Your task to perform on an android device: turn on the 12-hour format for clock Image 0: 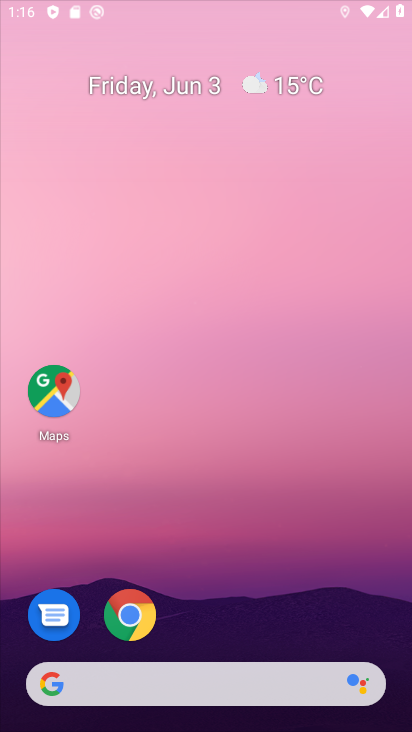
Step 0: drag from (165, 654) to (244, 313)
Your task to perform on an android device: turn on the 12-hour format for clock Image 1: 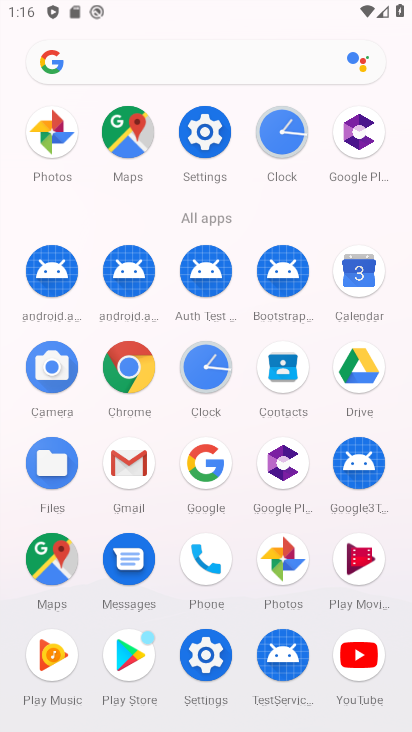
Step 1: click (213, 373)
Your task to perform on an android device: turn on the 12-hour format for clock Image 2: 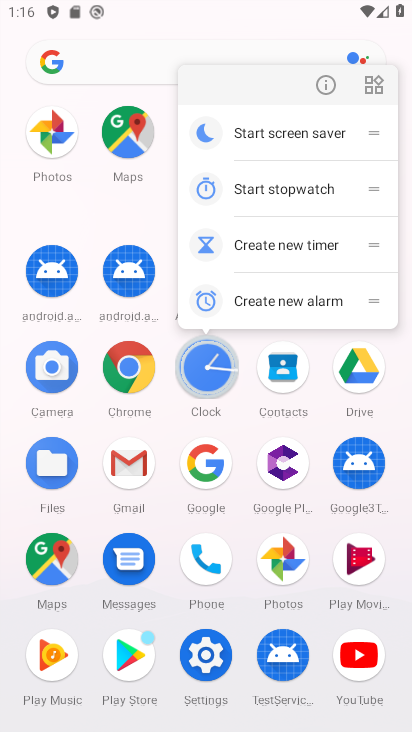
Step 2: click (213, 373)
Your task to perform on an android device: turn on the 12-hour format for clock Image 3: 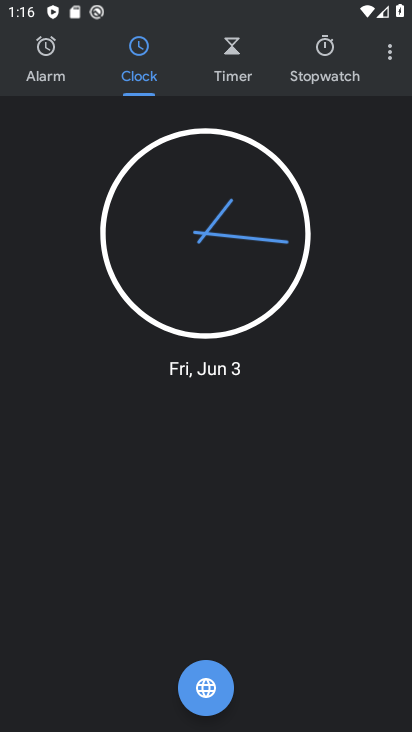
Step 3: press home button
Your task to perform on an android device: turn on the 12-hour format for clock Image 4: 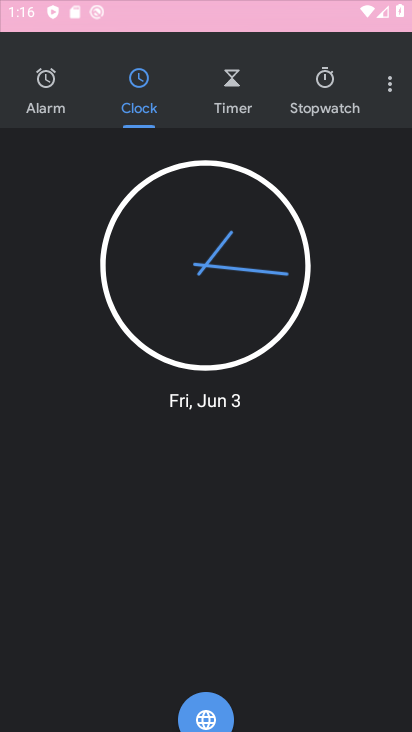
Step 4: drag from (216, 560) to (366, 94)
Your task to perform on an android device: turn on the 12-hour format for clock Image 5: 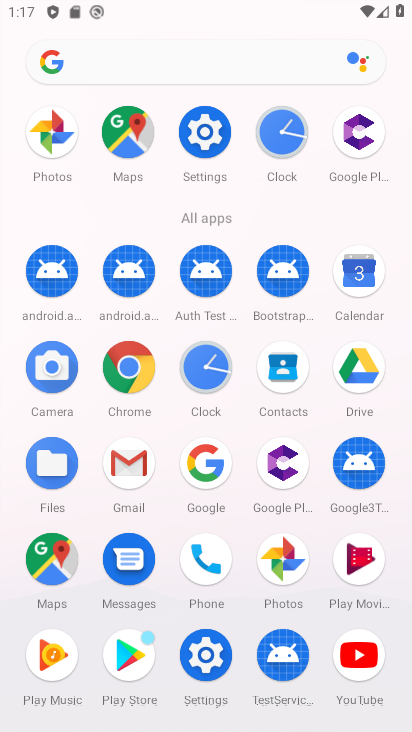
Step 5: click (189, 378)
Your task to perform on an android device: turn on the 12-hour format for clock Image 6: 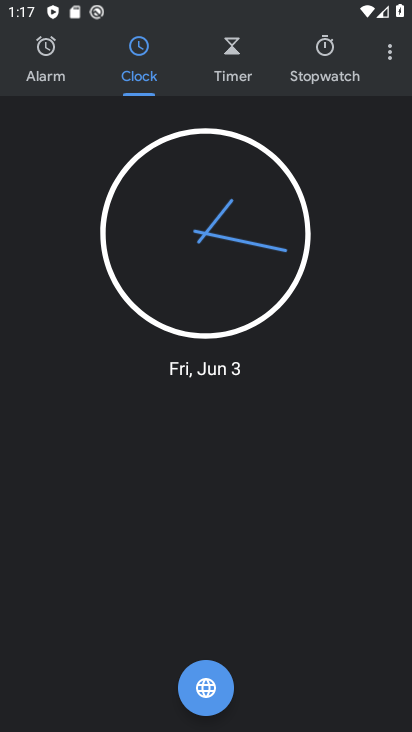
Step 6: click (392, 63)
Your task to perform on an android device: turn on the 12-hour format for clock Image 7: 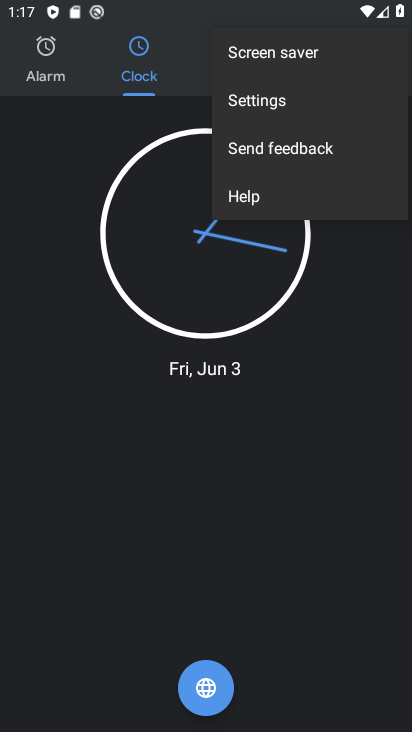
Step 7: click (312, 93)
Your task to perform on an android device: turn on the 12-hour format for clock Image 8: 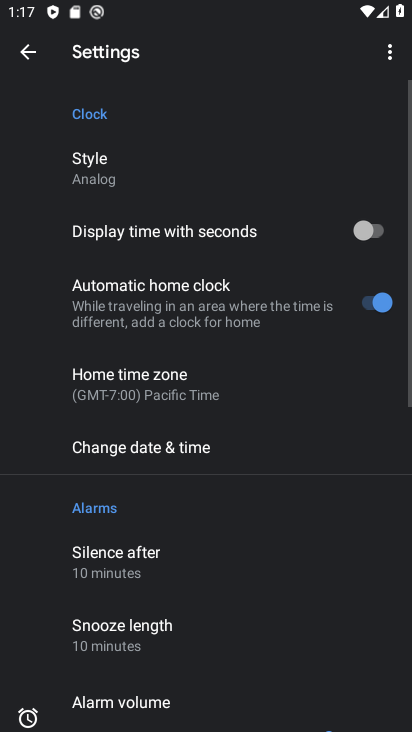
Step 8: click (142, 445)
Your task to perform on an android device: turn on the 12-hour format for clock Image 9: 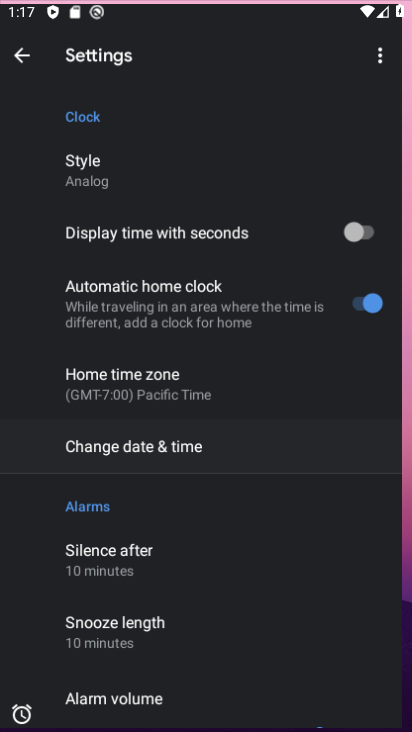
Step 9: task complete